Your task to perform on an android device: show emergency info Image 0: 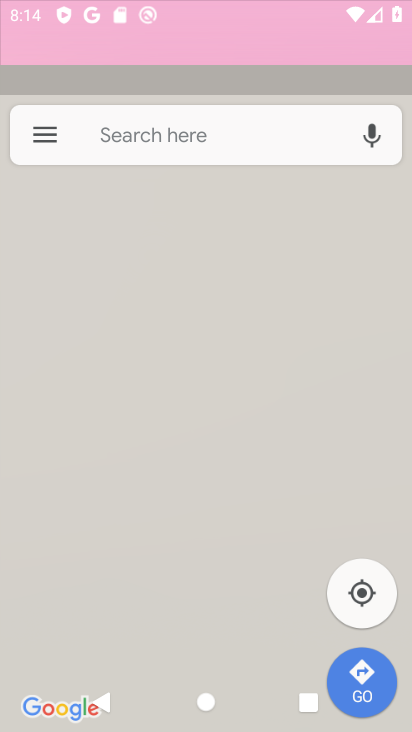
Step 0: press home button
Your task to perform on an android device: show emergency info Image 1: 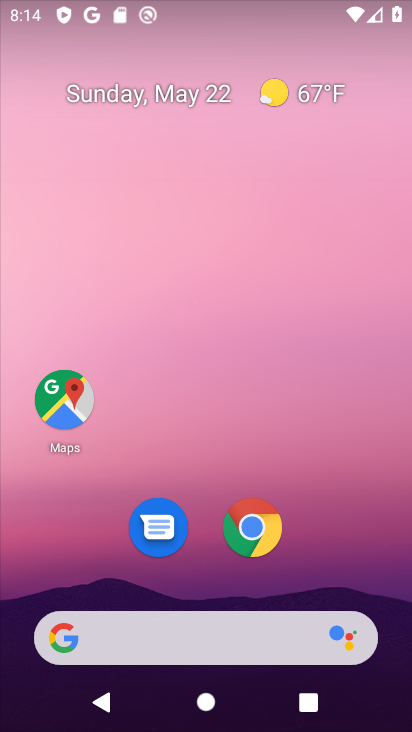
Step 1: drag from (210, 584) to (224, 70)
Your task to perform on an android device: show emergency info Image 2: 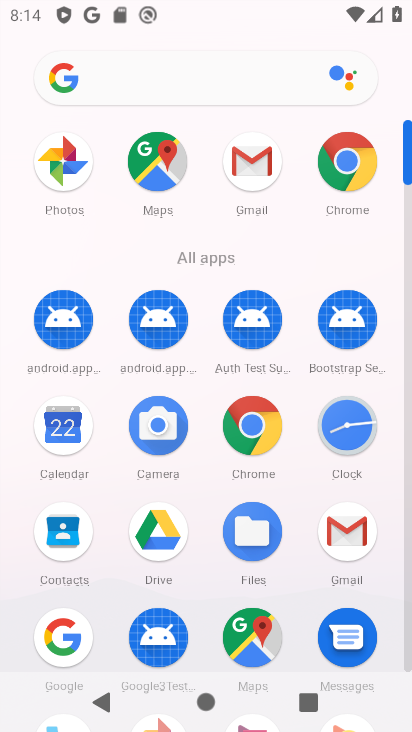
Step 2: drag from (199, 600) to (216, 132)
Your task to perform on an android device: show emergency info Image 3: 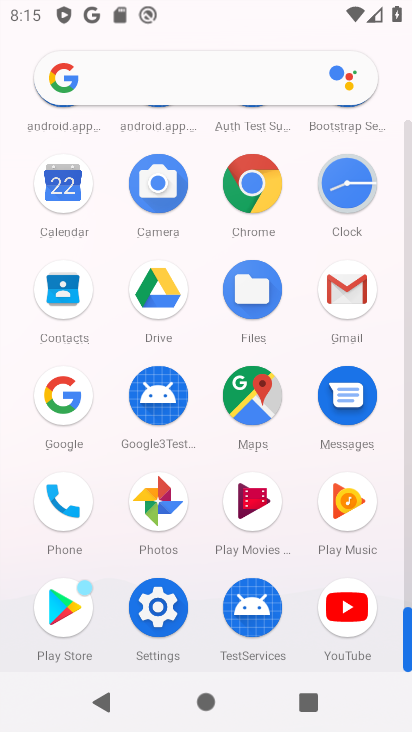
Step 3: click (156, 599)
Your task to perform on an android device: show emergency info Image 4: 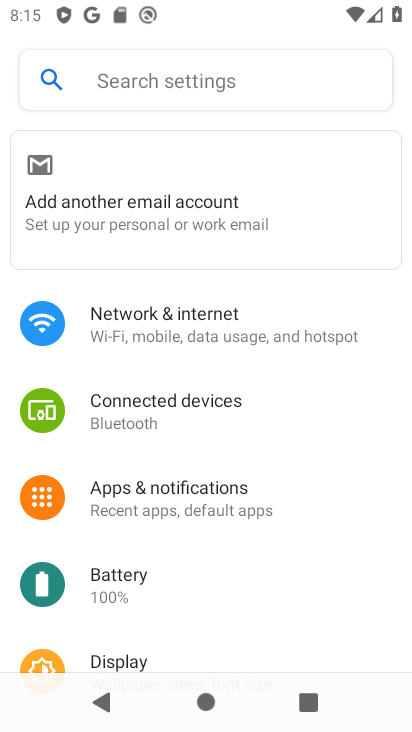
Step 4: drag from (204, 631) to (234, 62)
Your task to perform on an android device: show emergency info Image 5: 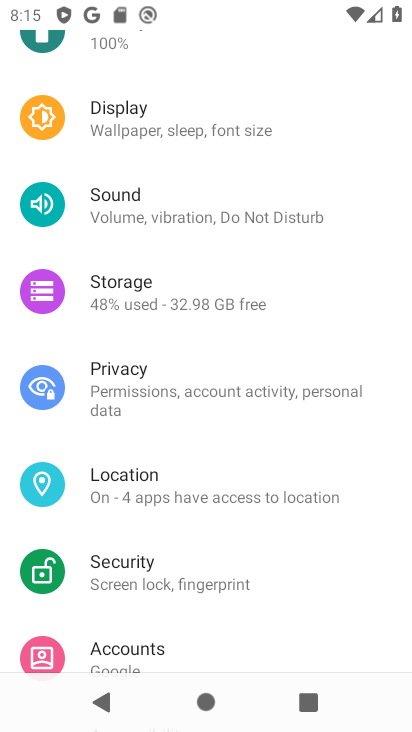
Step 5: drag from (213, 636) to (233, 60)
Your task to perform on an android device: show emergency info Image 6: 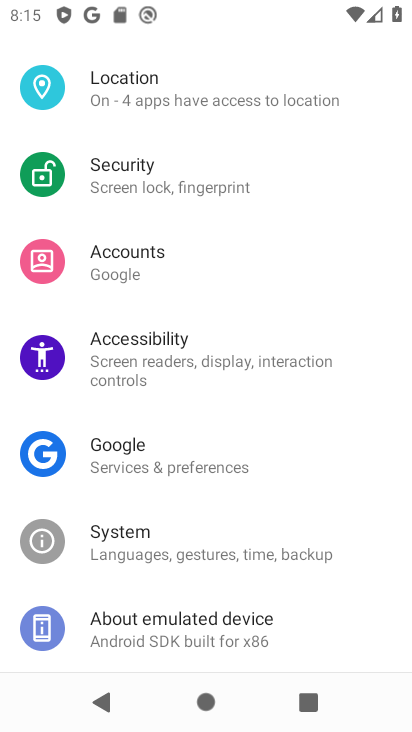
Step 6: click (276, 633)
Your task to perform on an android device: show emergency info Image 7: 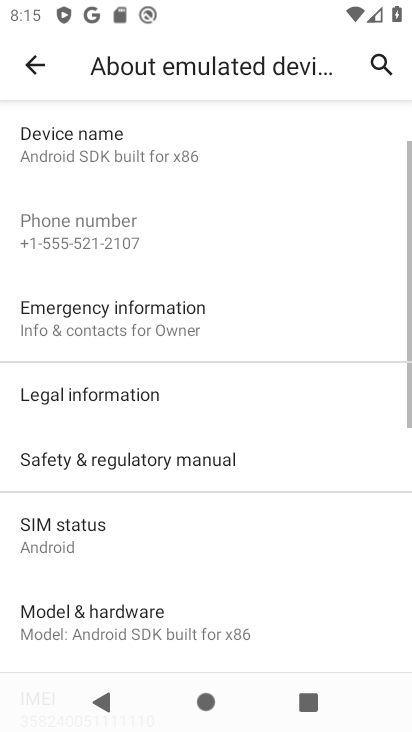
Step 7: click (216, 322)
Your task to perform on an android device: show emergency info Image 8: 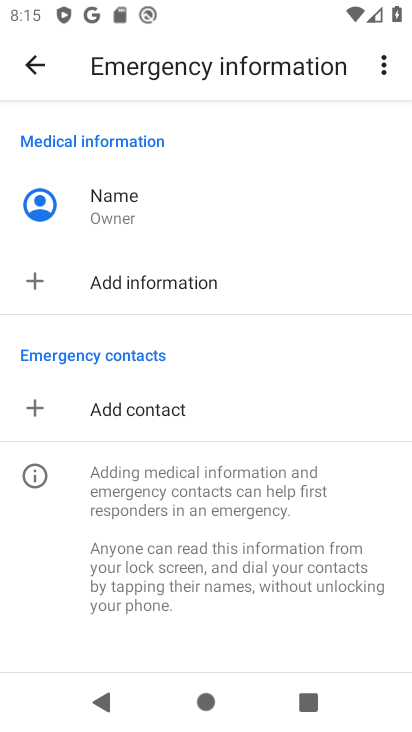
Step 8: task complete